Your task to perform on an android device: check google app version Image 0: 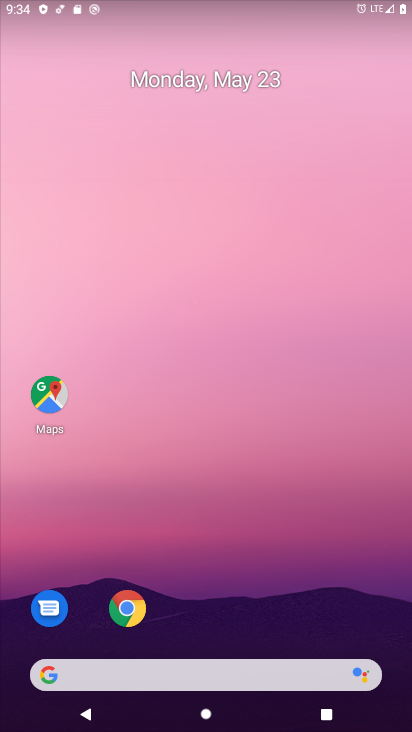
Step 0: click (132, 603)
Your task to perform on an android device: check google app version Image 1: 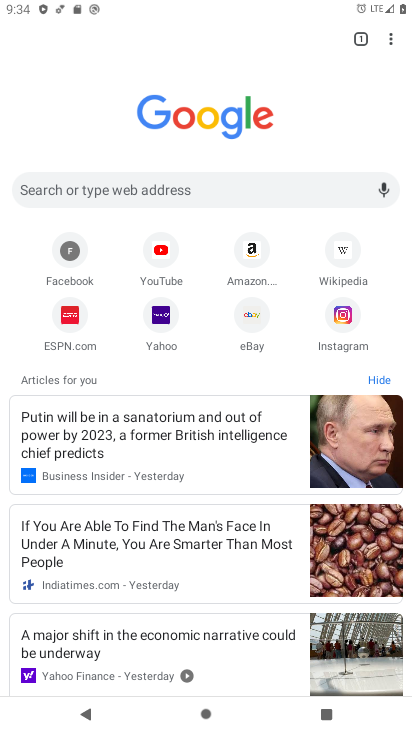
Step 1: click (394, 45)
Your task to perform on an android device: check google app version Image 2: 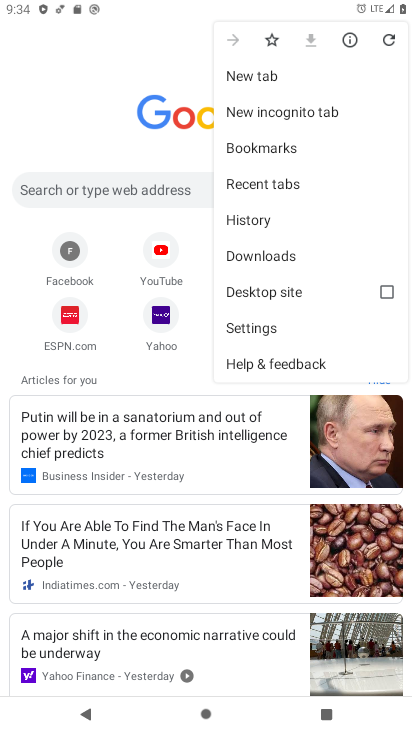
Step 2: click (304, 370)
Your task to perform on an android device: check google app version Image 3: 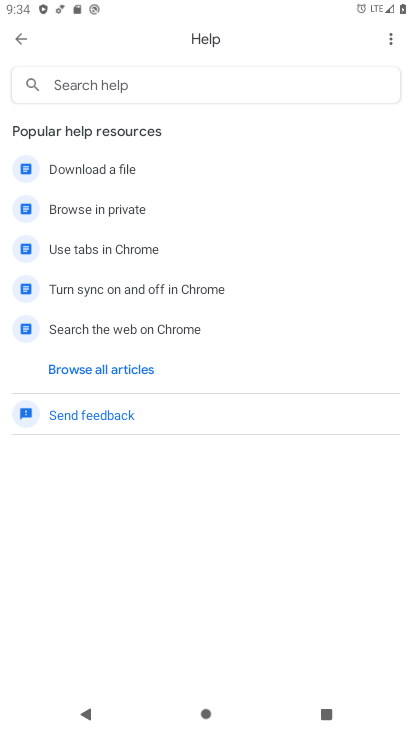
Step 3: click (392, 39)
Your task to perform on an android device: check google app version Image 4: 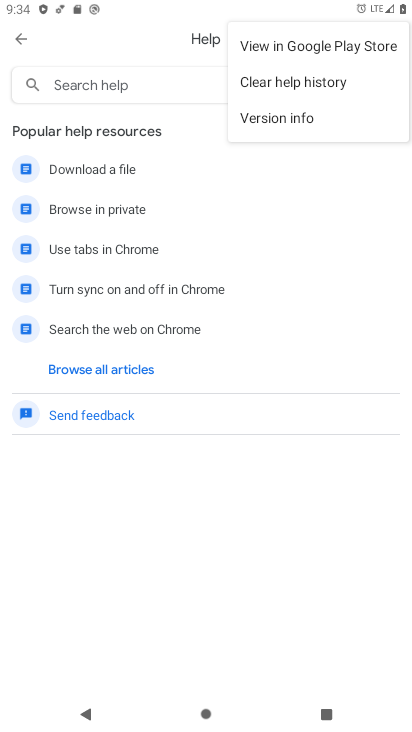
Step 4: click (330, 120)
Your task to perform on an android device: check google app version Image 5: 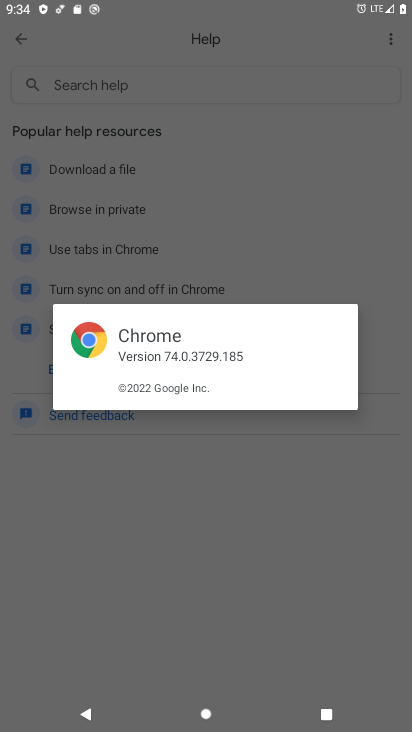
Step 5: task complete